Your task to perform on an android device: Go to sound settings Image 0: 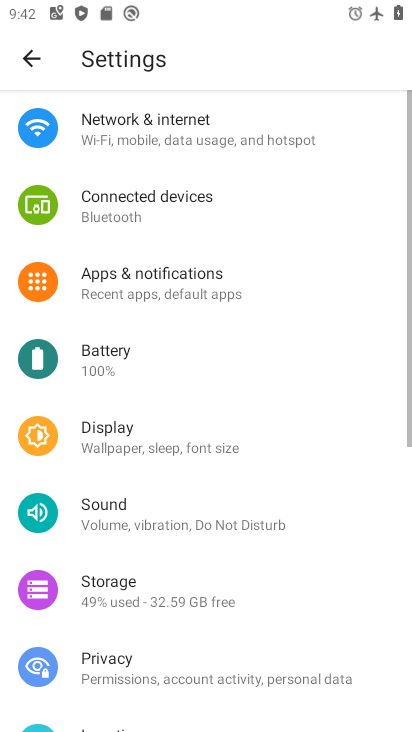
Step 0: press home button
Your task to perform on an android device: Go to sound settings Image 1: 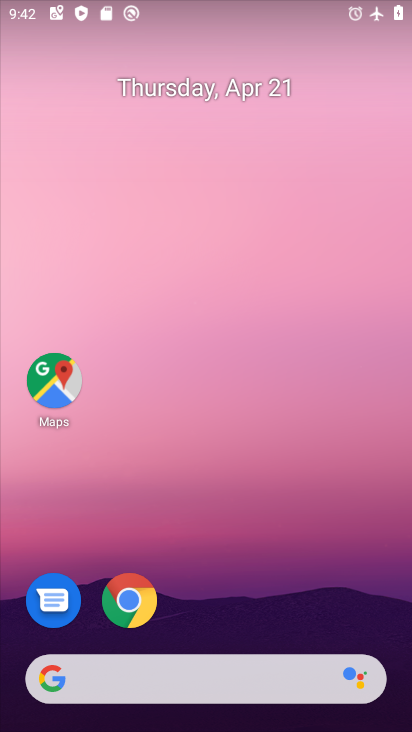
Step 1: drag from (254, 579) to (250, 50)
Your task to perform on an android device: Go to sound settings Image 2: 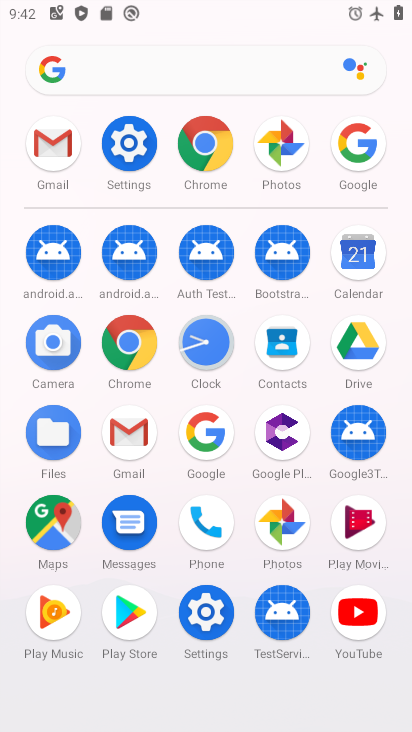
Step 2: click (128, 142)
Your task to perform on an android device: Go to sound settings Image 3: 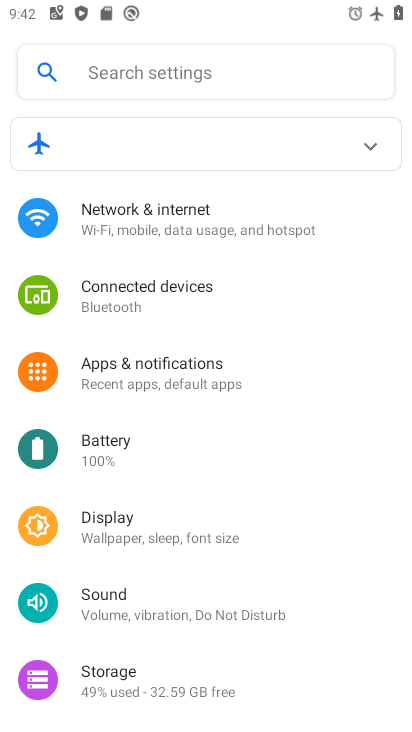
Step 3: click (108, 611)
Your task to perform on an android device: Go to sound settings Image 4: 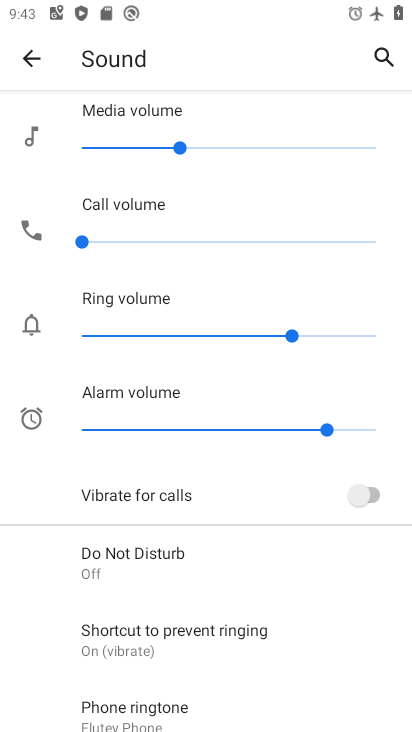
Step 4: task complete